Your task to perform on an android device: check the backup settings in the google photos Image 0: 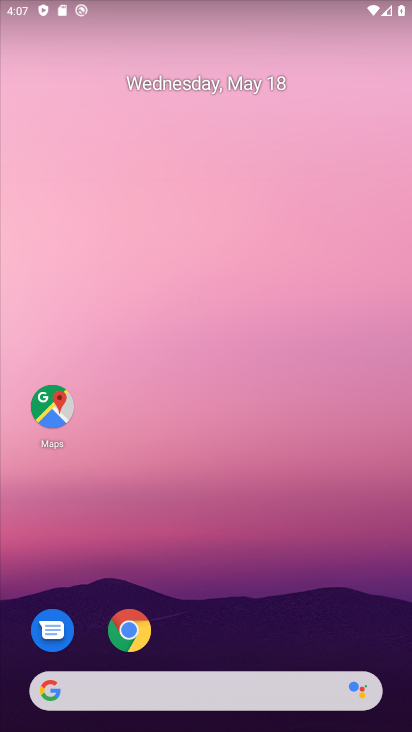
Step 0: drag from (338, 711) to (299, 148)
Your task to perform on an android device: check the backup settings in the google photos Image 1: 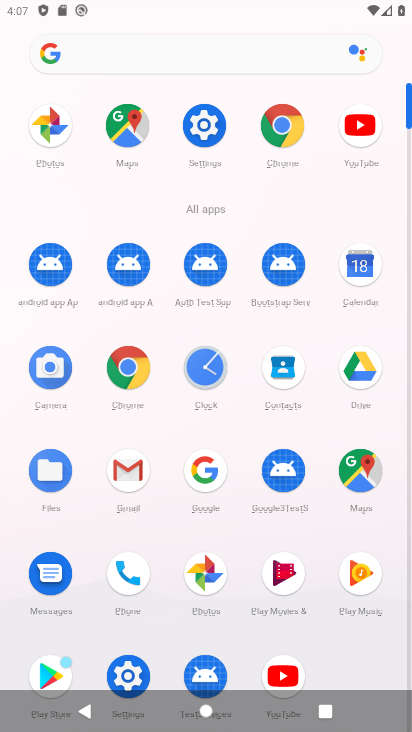
Step 1: click (190, 576)
Your task to perform on an android device: check the backup settings in the google photos Image 2: 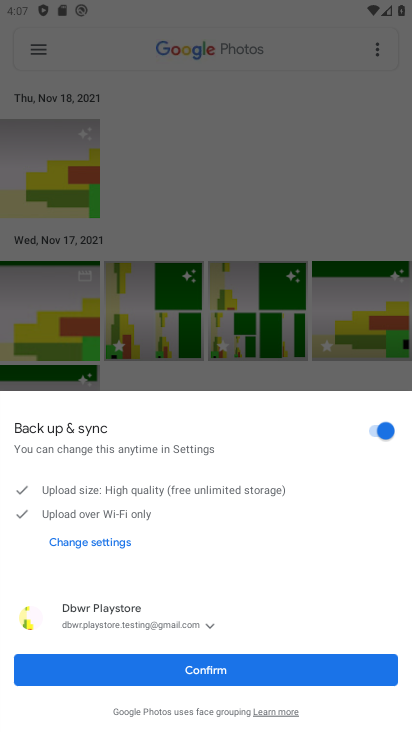
Step 2: click (198, 671)
Your task to perform on an android device: check the backup settings in the google photos Image 3: 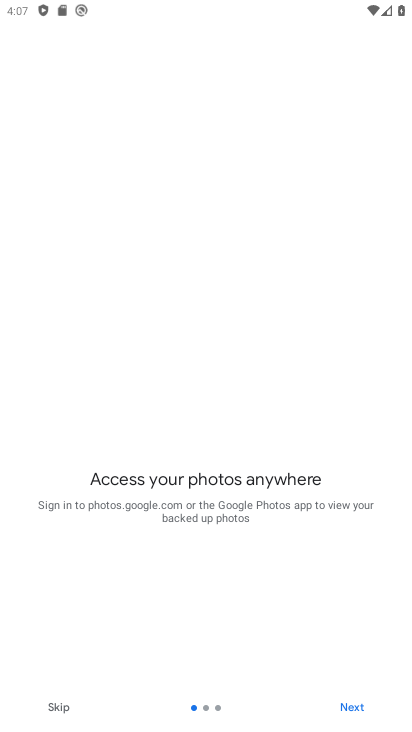
Step 3: click (344, 703)
Your task to perform on an android device: check the backup settings in the google photos Image 4: 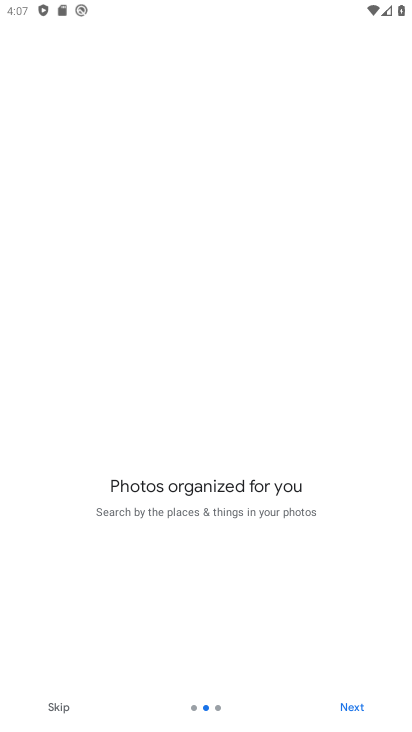
Step 4: click (343, 705)
Your task to perform on an android device: check the backup settings in the google photos Image 5: 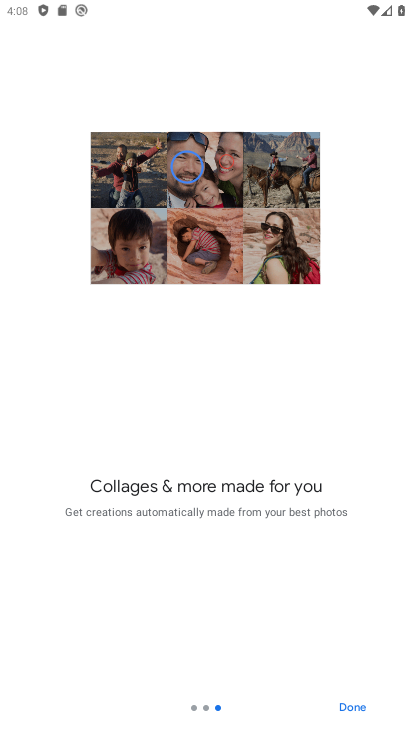
Step 5: click (344, 705)
Your task to perform on an android device: check the backup settings in the google photos Image 6: 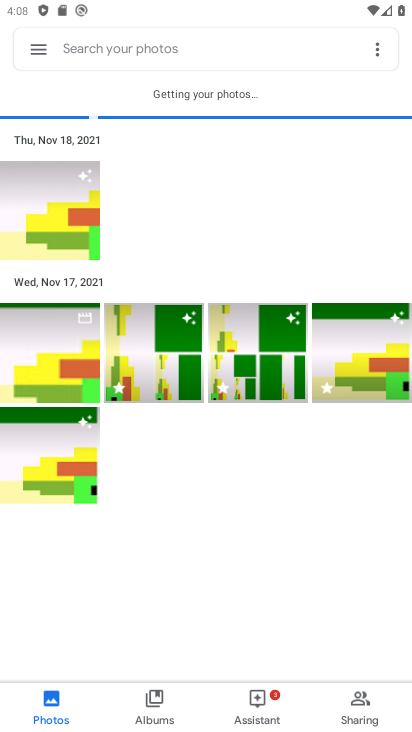
Step 6: click (24, 48)
Your task to perform on an android device: check the backup settings in the google photos Image 7: 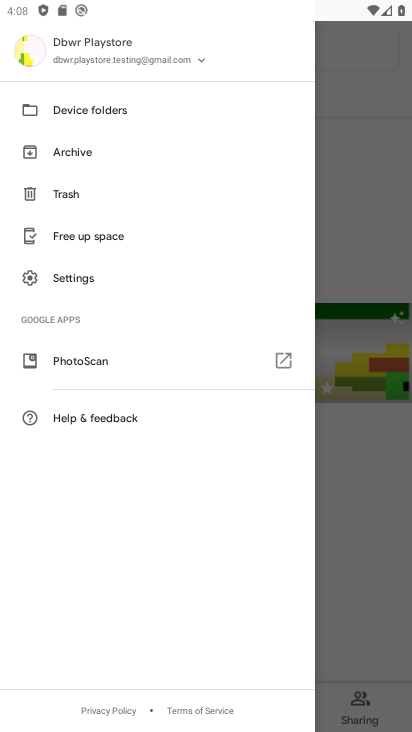
Step 7: click (76, 282)
Your task to perform on an android device: check the backup settings in the google photos Image 8: 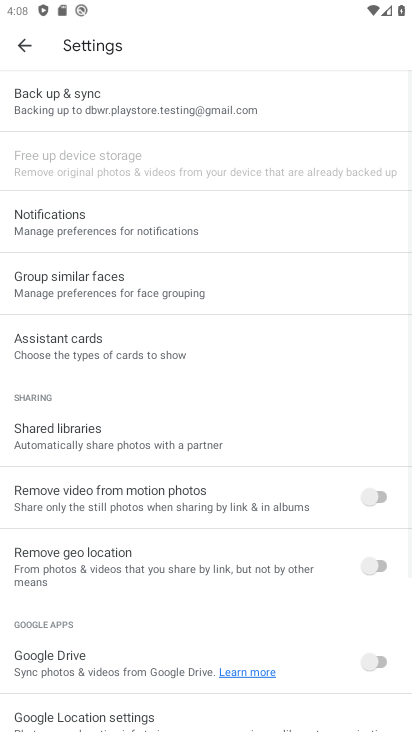
Step 8: click (109, 107)
Your task to perform on an android device: check the backup settings in the google photos Image 9: 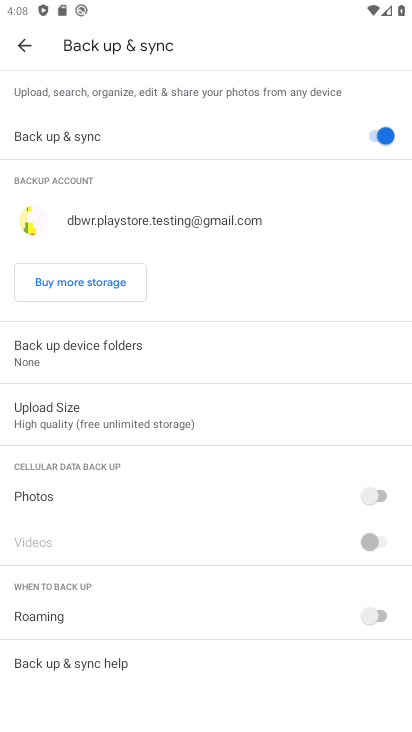
Step 9: task complete